Your task to perform on an android device: open a bookmark in the chrome app Image 0: 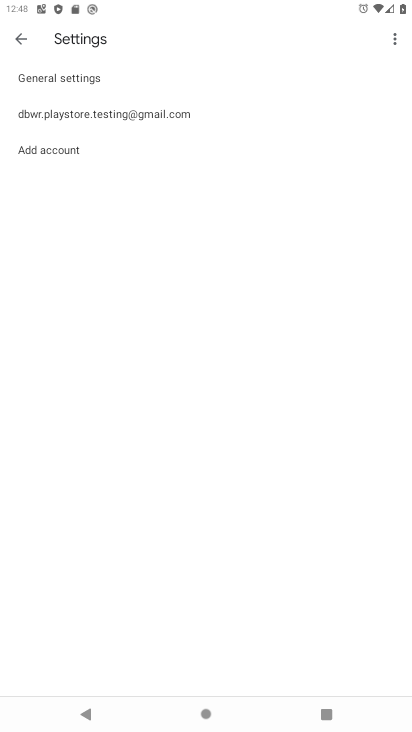
Step 0: press home button
Your task to perform on an android device: open a bookmark in the chrome app Image 1: 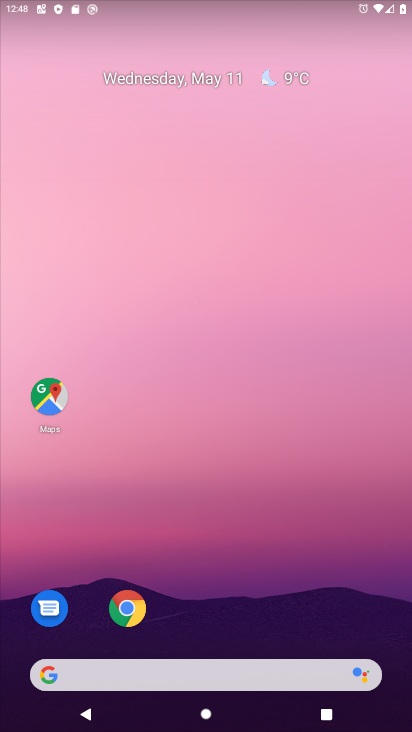
Step 1: drag from (272, 626) to (208, 231)
Your task to perform on an android device: open a bookmark in the chrome app Image 2: 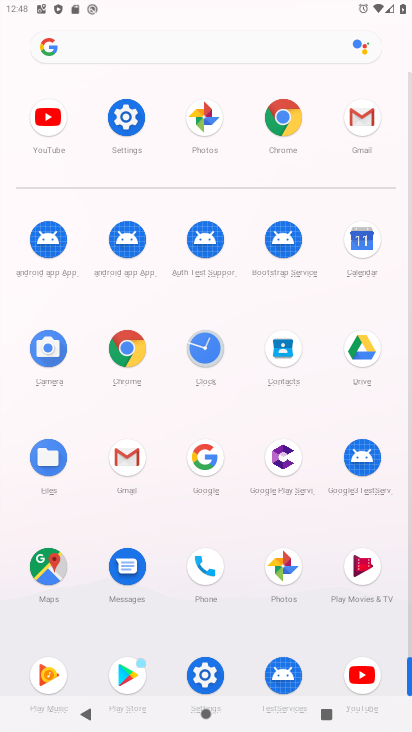
Step 2: click (296, 144)
Your task to perform on an android device: open a bookmark in the chrome app Image 3: 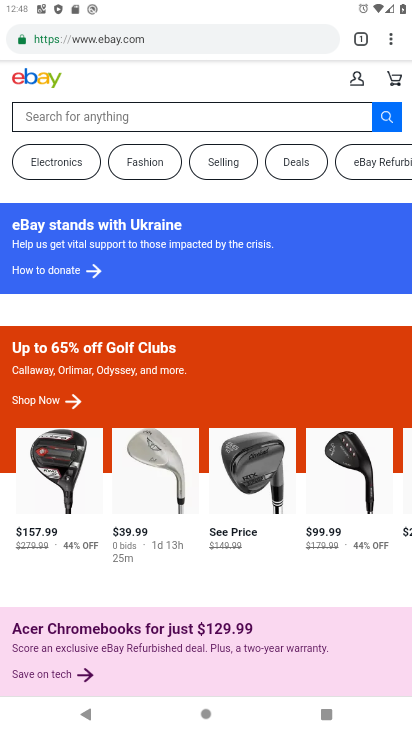
Step 3: click (397, 37)
Your task to perform on an android device: open a bookmark in the chrome app Image 4: 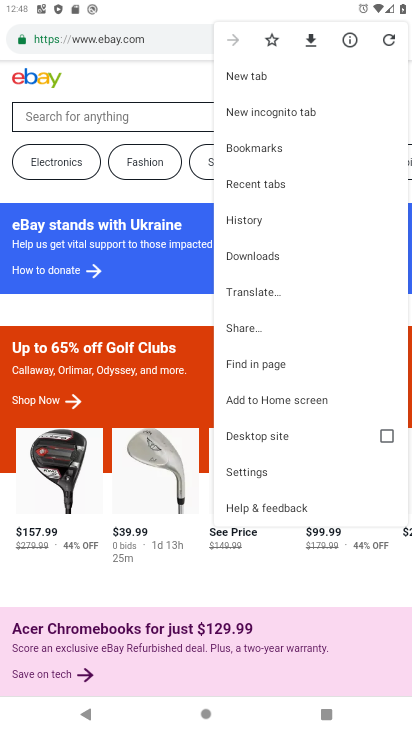
Step 4: click (277, 148)
Your task to perform on an android device: open a bookmark in the chrome app Image 5: 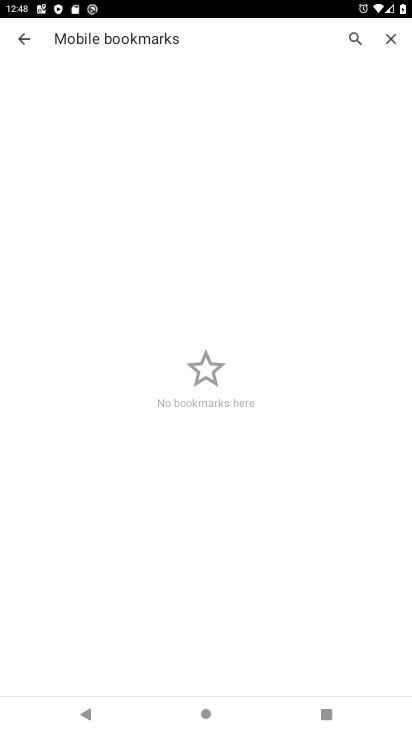
Step 5: task complete